Your task to perform on an android device: change timer sound Image 0: 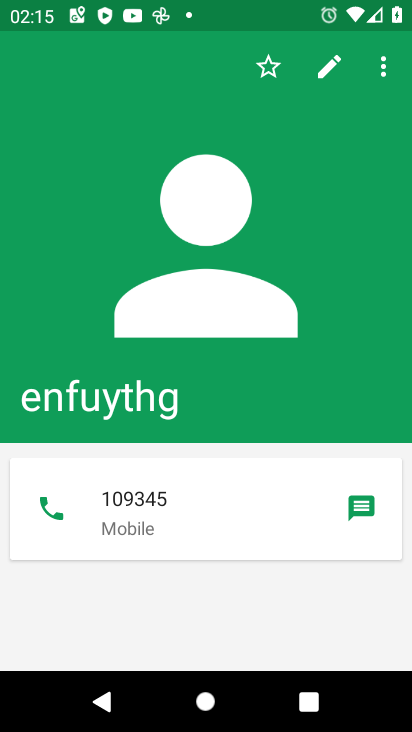
Step 0: press home button
Your task to perform on an android device: change timer sound Image 1: 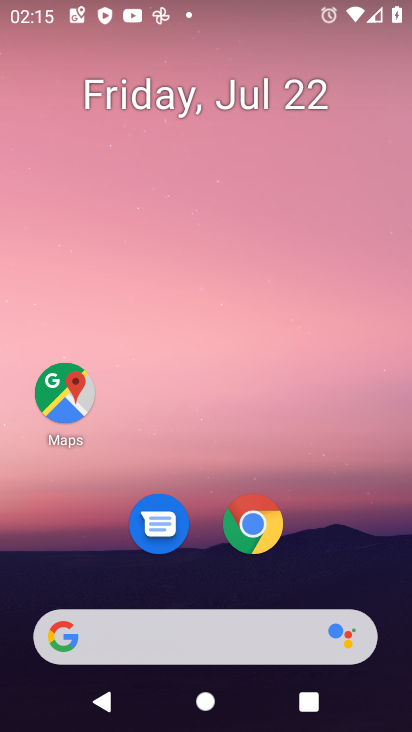
Step 1: drag from (177, 652) to (248, 190)
Your task to perform on an android device: change timer sound Image 2: 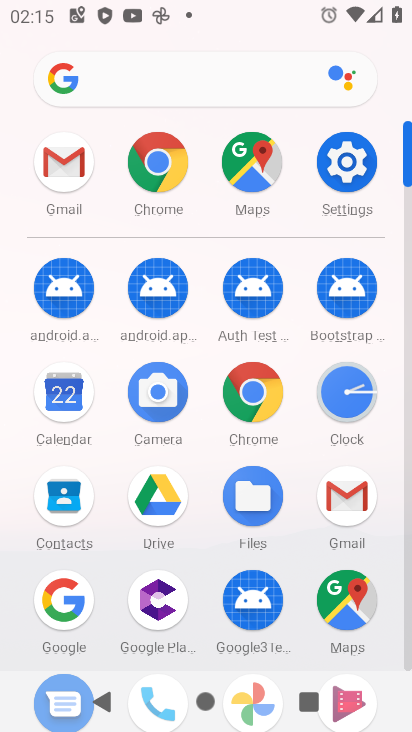
Step 2: click (342, 382)
Your task to perform on an android device: change timer sound Image 3: 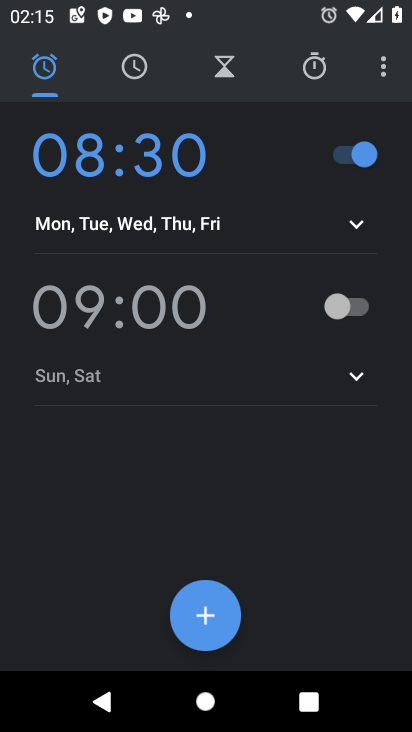
Step 3: click (385, 72)
Your task to perform on an android device: change timer sound Image 4: 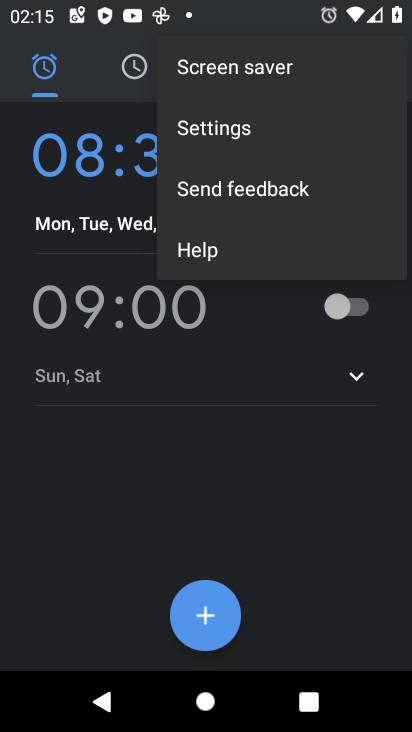
Step 4: click (232, 129)
Your task to perform on an android device: change timer sound Image 5: 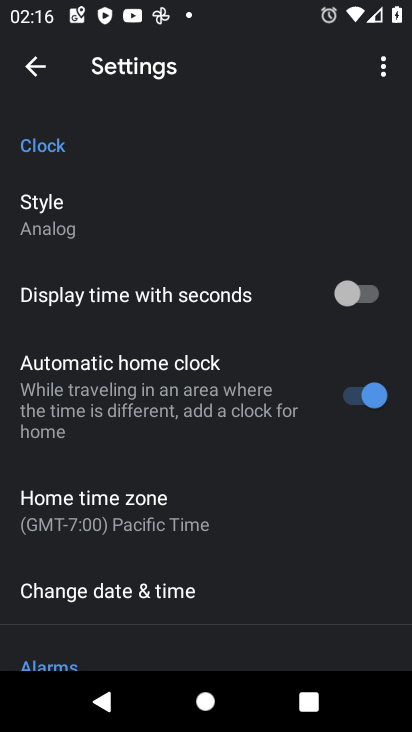
Step 5: drag from (219, 500) to (290, 101)
Your task to perform on an android device: change timer sound Image 6: 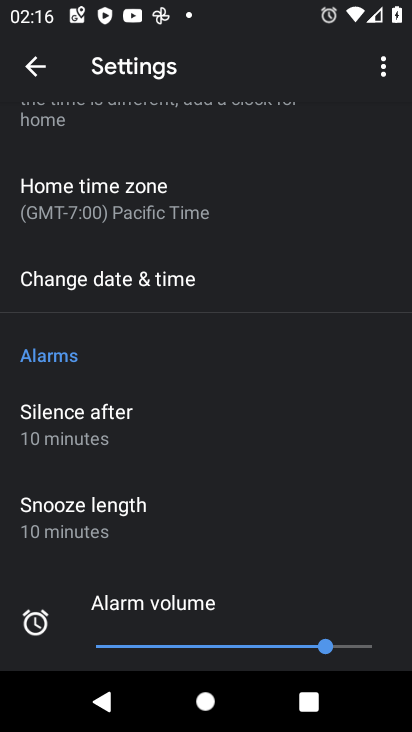
Step 6: drag from (179, 543) to (319, 127)
Your task to perform on an android device: change timer sound Image 7: 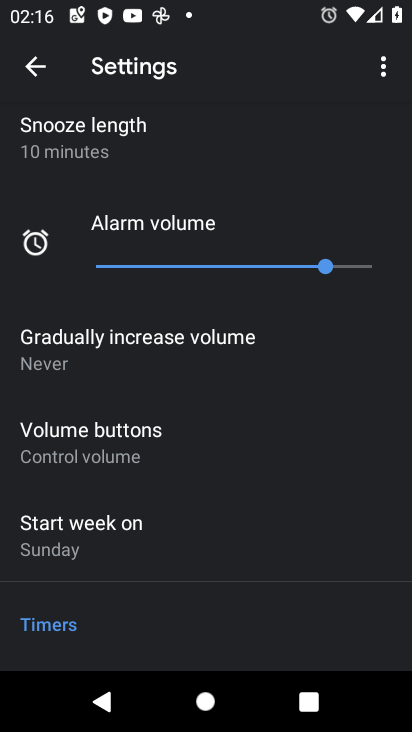
Step 7: drag from (172, 542) to (307, 120)
Your task to perform on an android device: change timer sound Image 8: 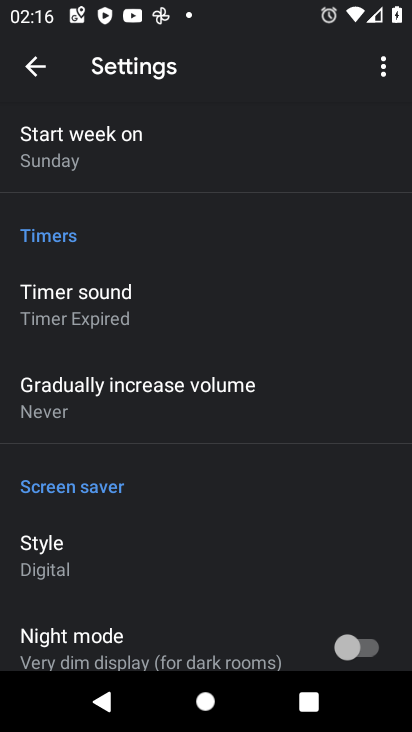
Step 8: click (111, 306)
Your task to perform on an android device: change timer sound Image 9: 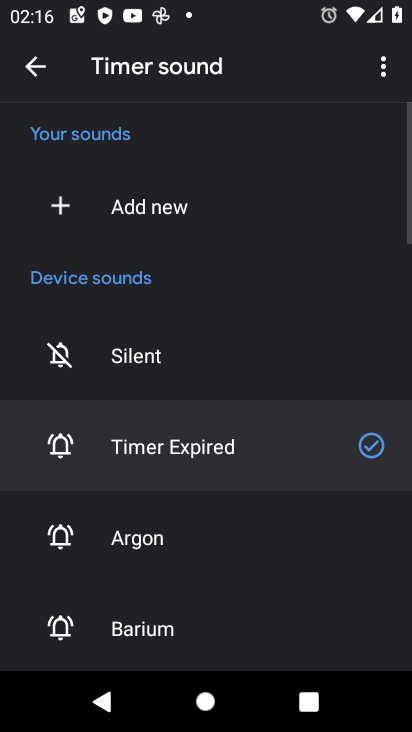
Step 9: click (146, 630)
Your task to perform on an android device: change timer sound Image 10: 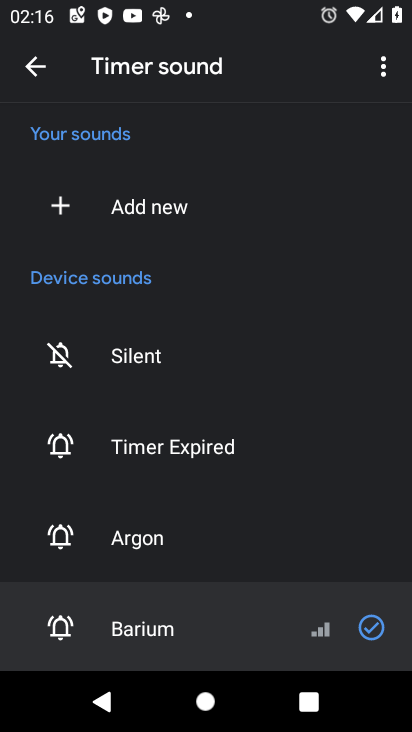
Step 10: task complete